Your task to perform on an android device: Open battery settings Image 0: 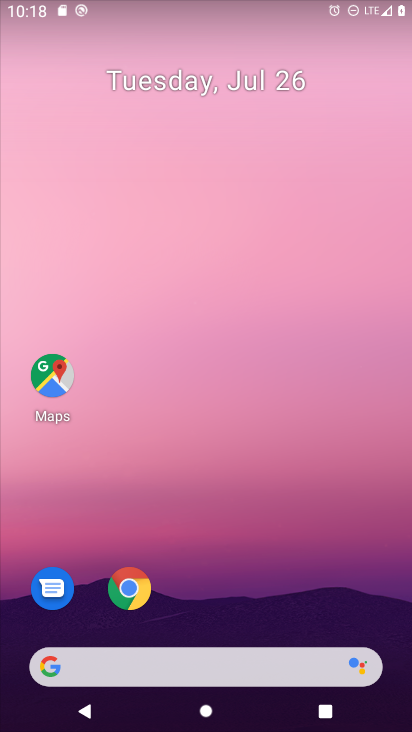
Step 0: drag from (221, 671) to (225, 113)
Your task to perform on an android device: Open battery settings Image 1: 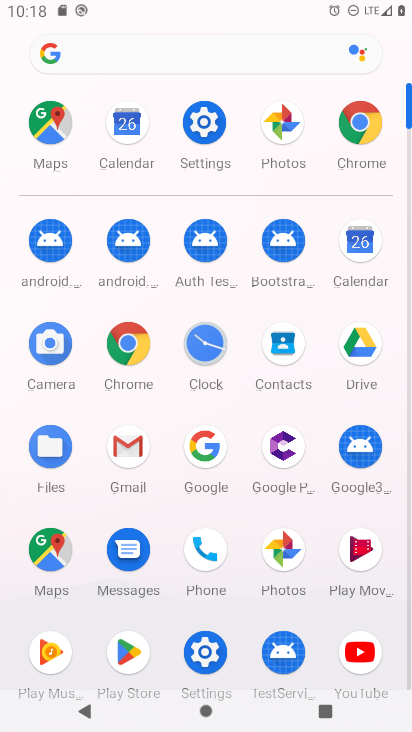
Step 1: click (208, 149)
Your task to perform on an android device: Open battery settings Image 2: 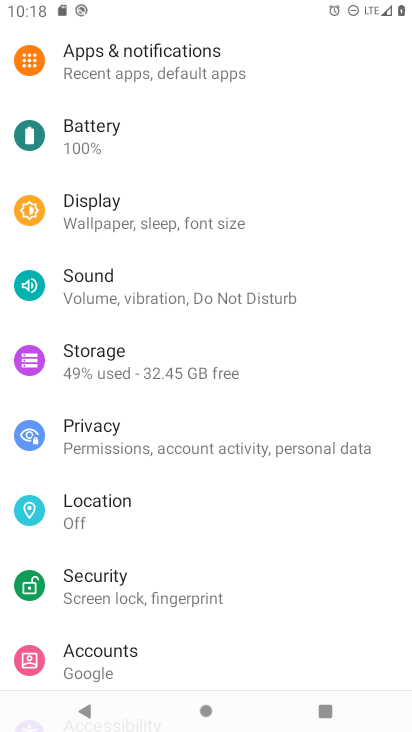
Step 2: click (119, 145)
Your task to perform on an android device: Open battery settings Image 3: 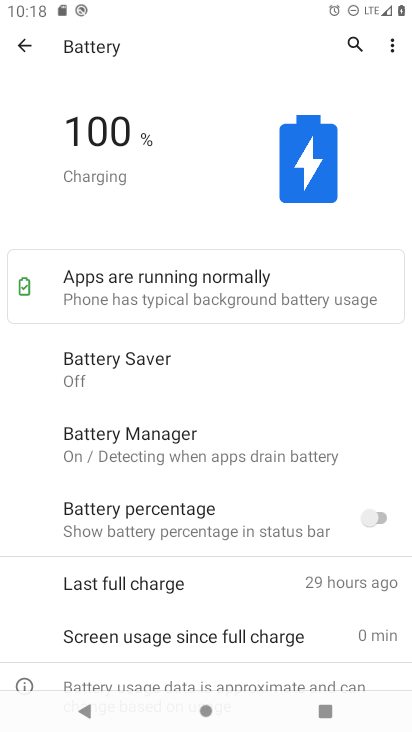
Step 3: task complete